Your task to perform on an android device: uninstall "Calculator" Image 0: 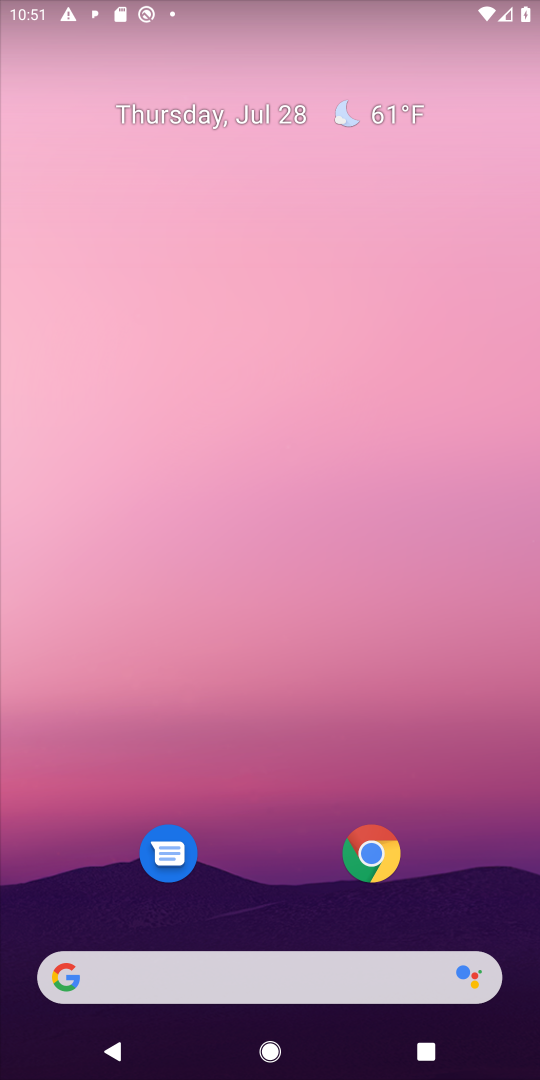
Step 0: drag from (197, 648) to (251, 60)
Your task to perform on an android device: uninstall "Calculator" Image 1: 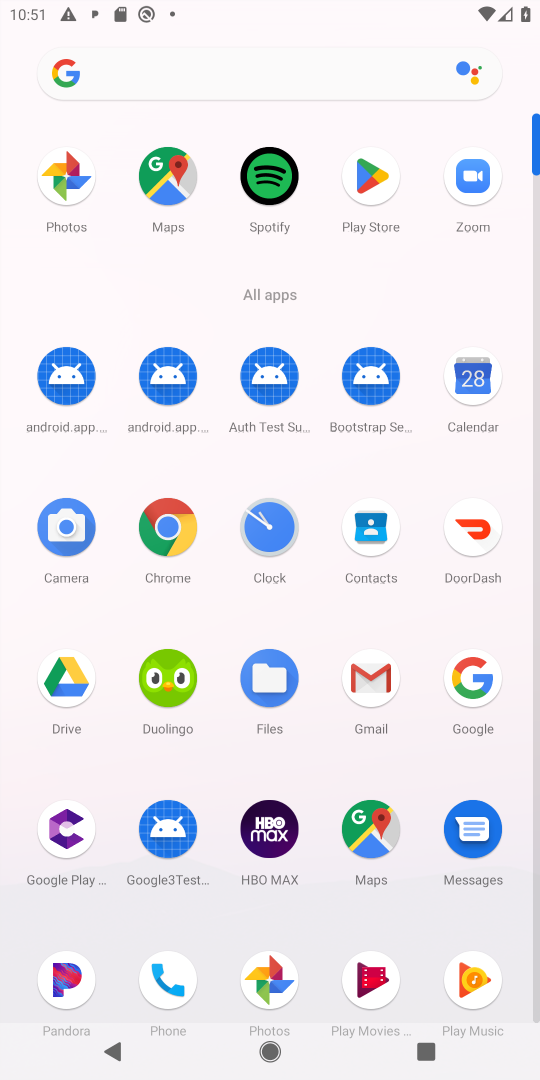
Step 1: click (365, 199)
Your task to perform on an android device: uninstall "Calculator" Image 2: 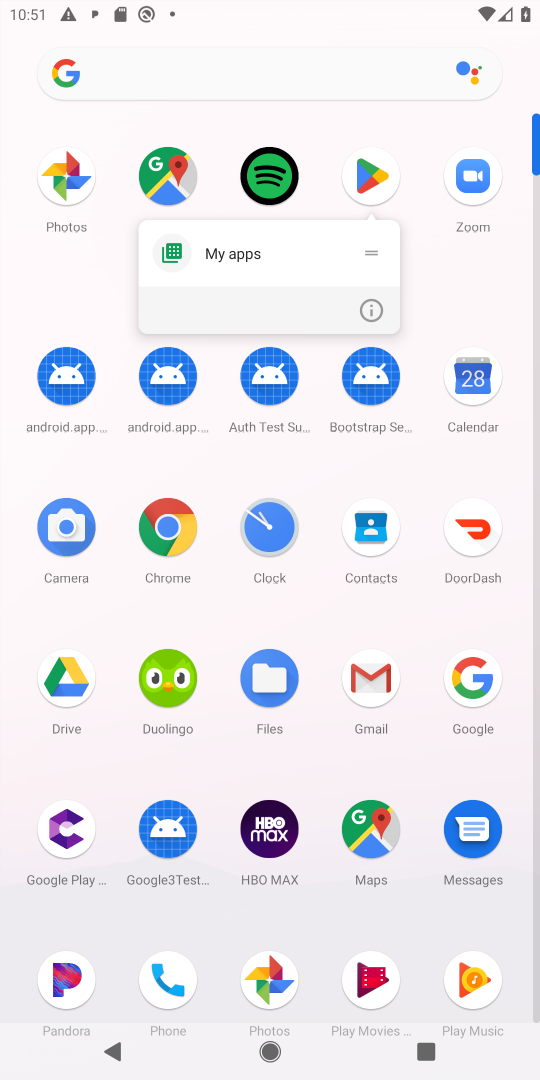
Step 2: click (365, 199)
Your task to perform on an android device: uninstall "Calculator" Image 3: 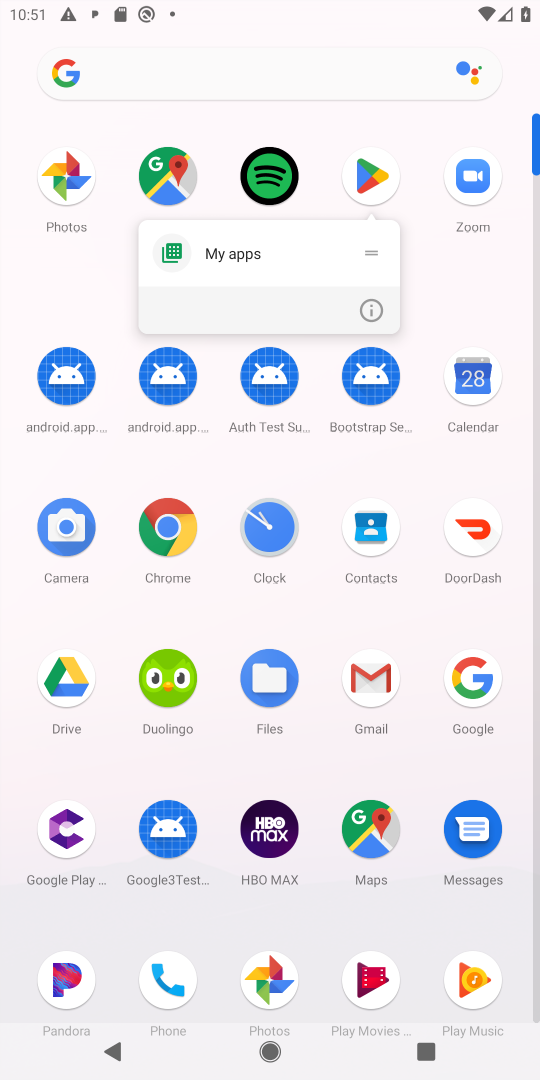
Step 3: click (369, 181)
Your task to perform on an android device: uninstall "Calculator" Image 4: 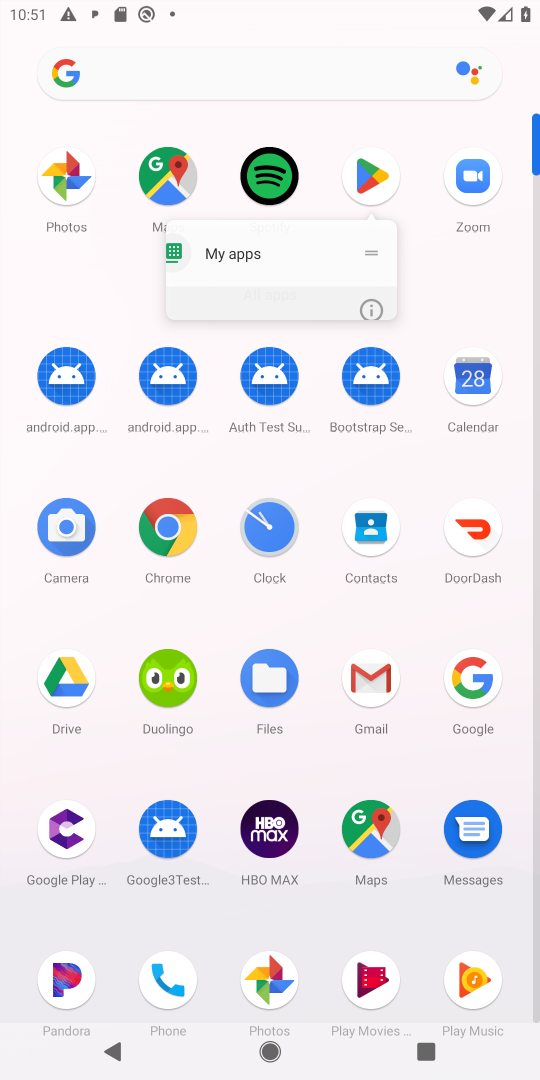
Step 4: click (369, 181)
Your task to perform on an android device: uninstall "Calculator" Image 5: 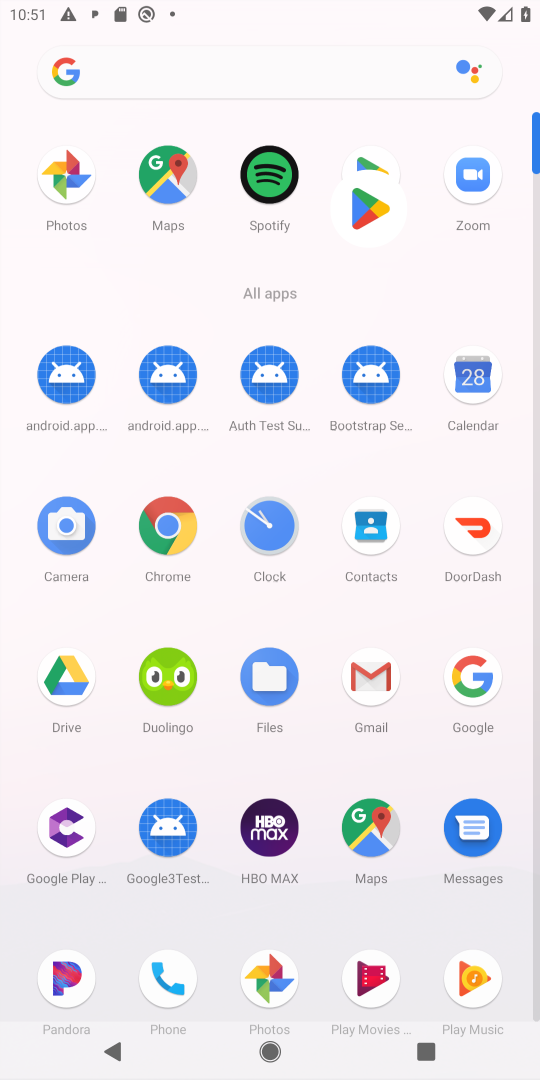
Step 5: click (369, 181)
Your task to perform on an android device: uninstall "Calculator" Image 6: 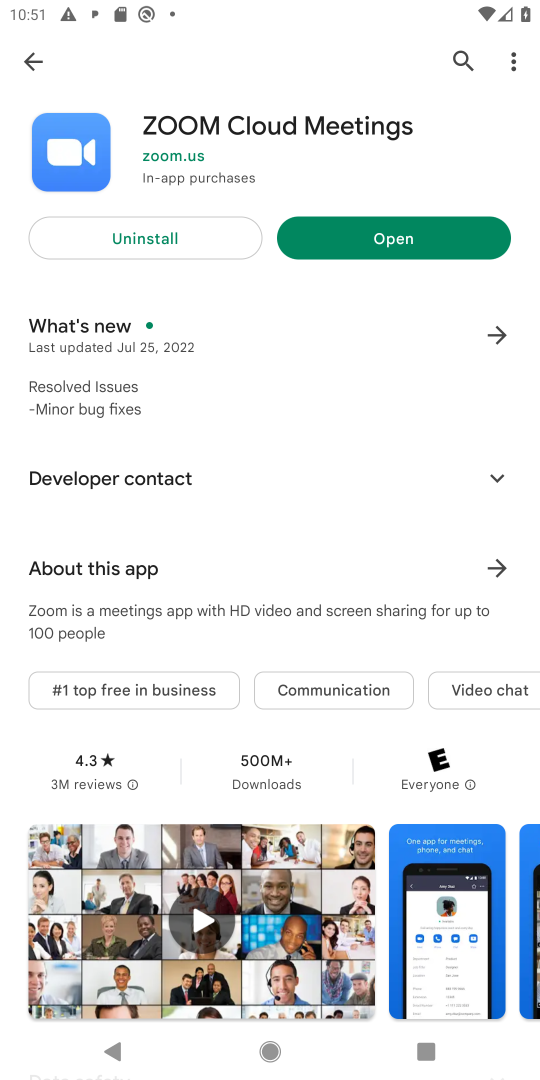
Step 6: click (460, 60)
Your task to perform on an android device: uninstall "Calculator" Image 7: 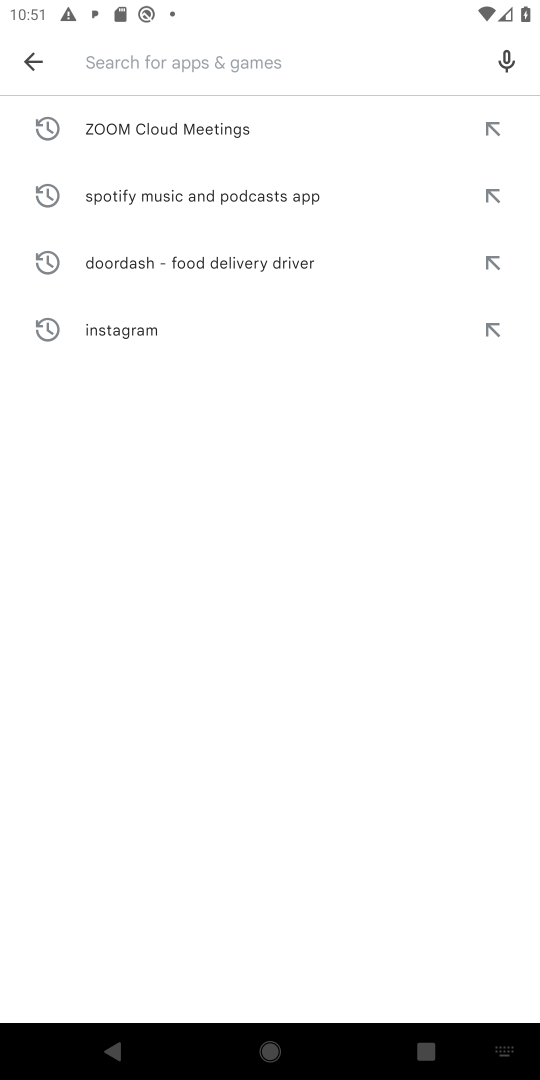
Step 7: type "Calculator"
Your task to perform on an android device: uninstall "Calculator" Image 8: 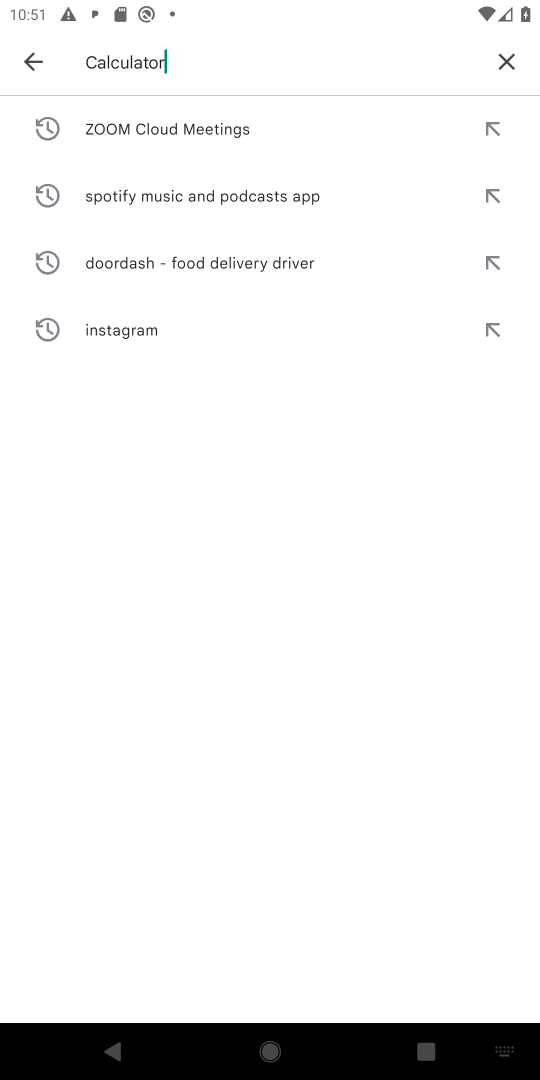
Step 8: type ""
Your task to perform on an android device: uninstall "Calculator" Image 9: 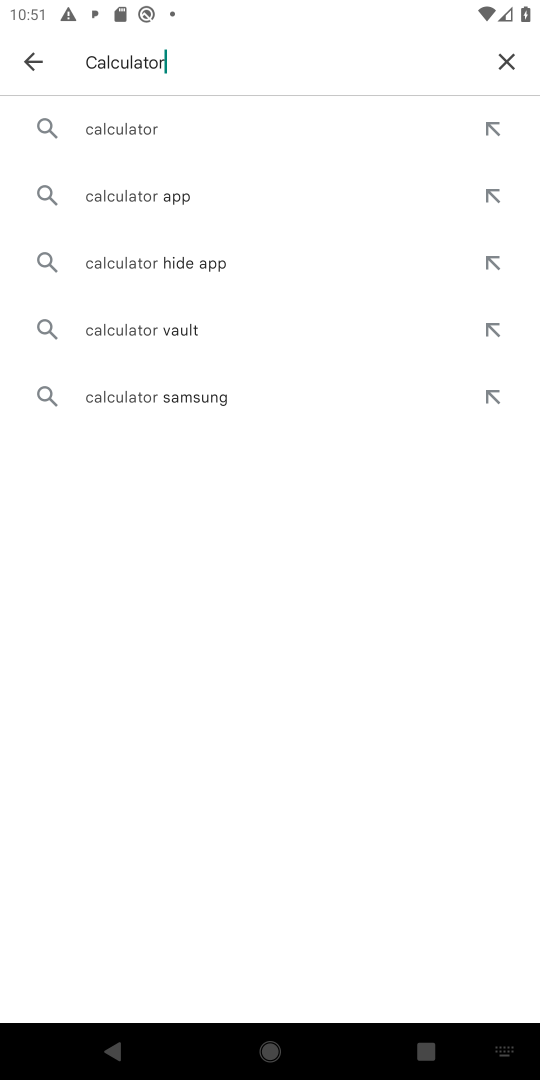
Step 9: click (166, 118)
Your task to perform on an android device: uninstall "Calculator" Image 10: 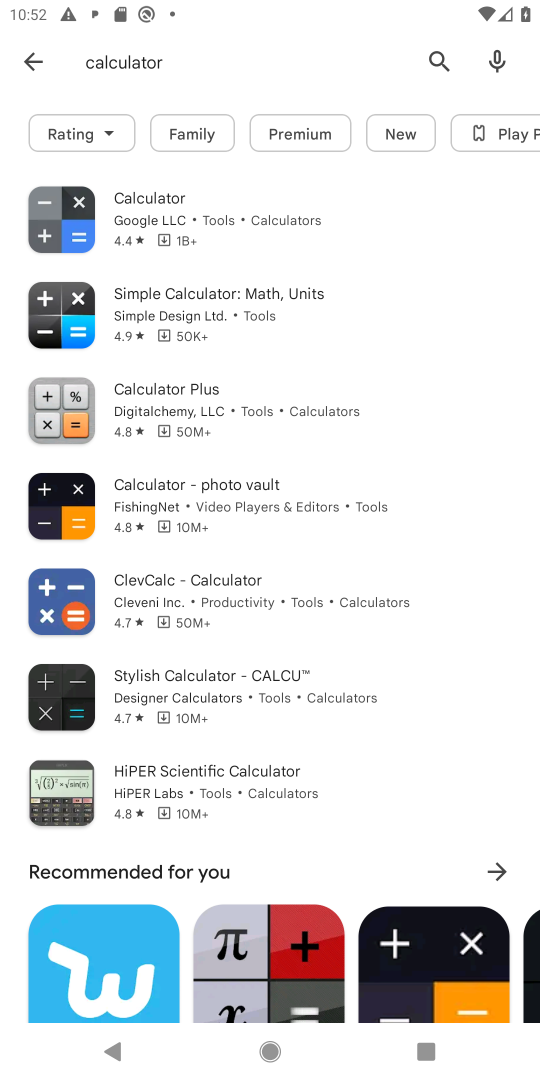
Step 10: task complete